Your task to perform on an android device: Is it going to rain today? Image 0: 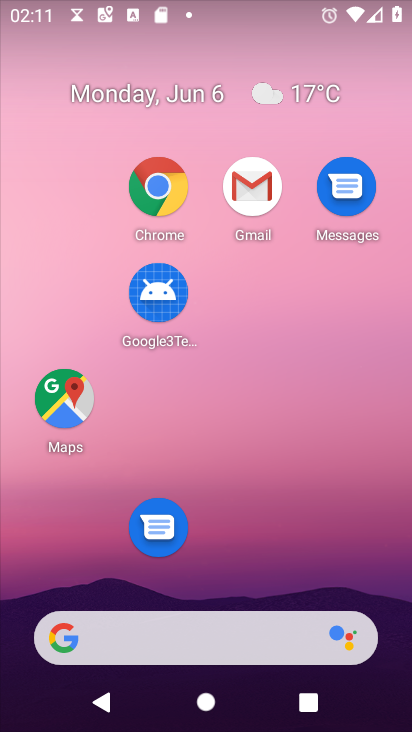
Step 0: click (225, 622)
Your task to perform on an android device: Is it going to rain today? Image 1: 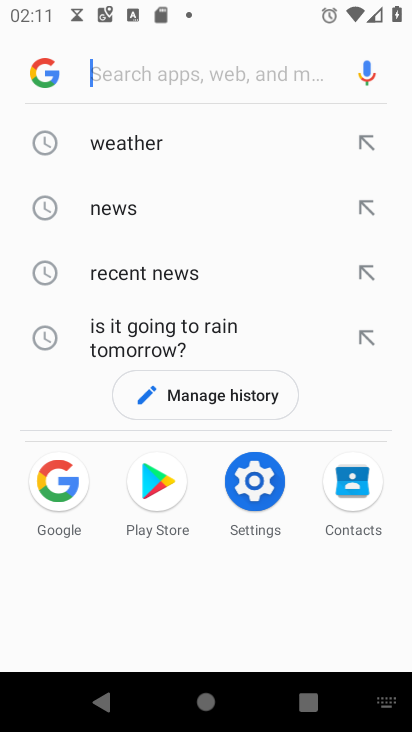
Step 1: click (153, 140)
Your task to perform on an android device: Is it going to rain today? Image 2: 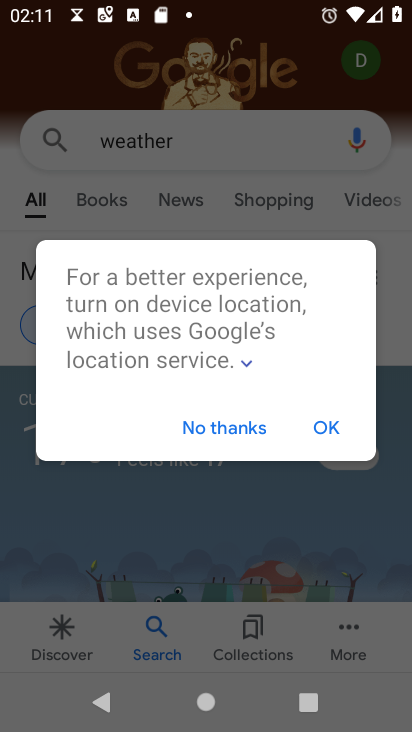
Step 2: click (232, 424)
Your task to perform on an android device: Is it going to rain today? Image 3: 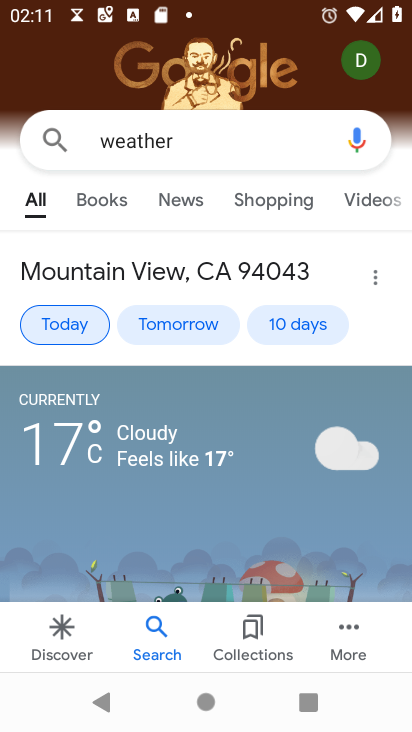
Step 3: task complete